Your task to perform on an android device: Search for the best rated tool bag on Lowe's. Image 0: 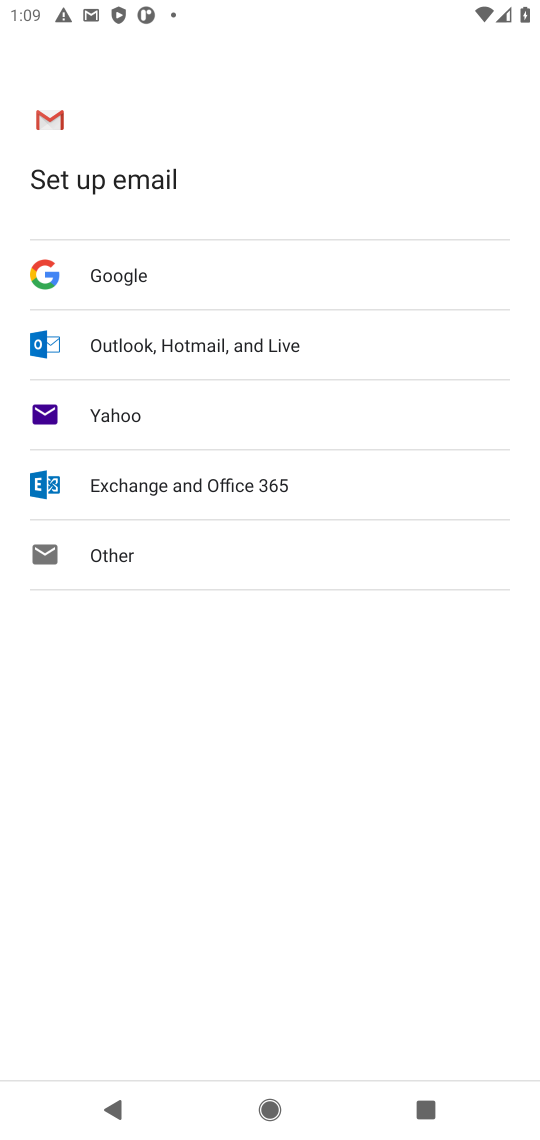
Step 0: press home button
Your task to perform on an android device: Search for the best rated tool bag on Lowe's. Image 1: 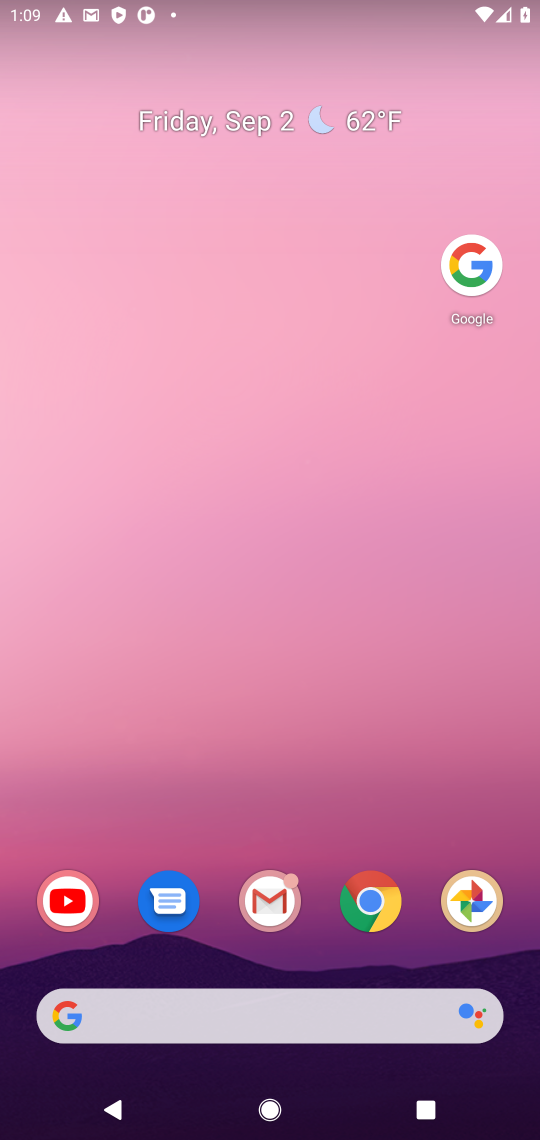
Step 1: click (216, 309)
Your task to perform on an android device: Search for the best rated tool bag on Lowe's. Image 2: 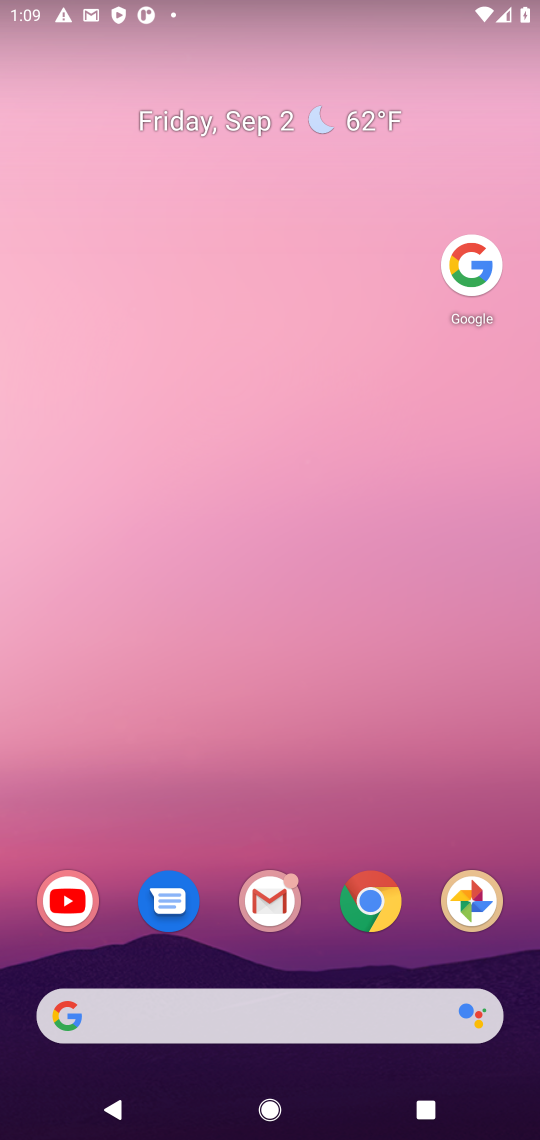
Step 2: click (361, 892)
Your task to perform on an android device: Search for the best rated tool bag on Lowe's. Image 3: 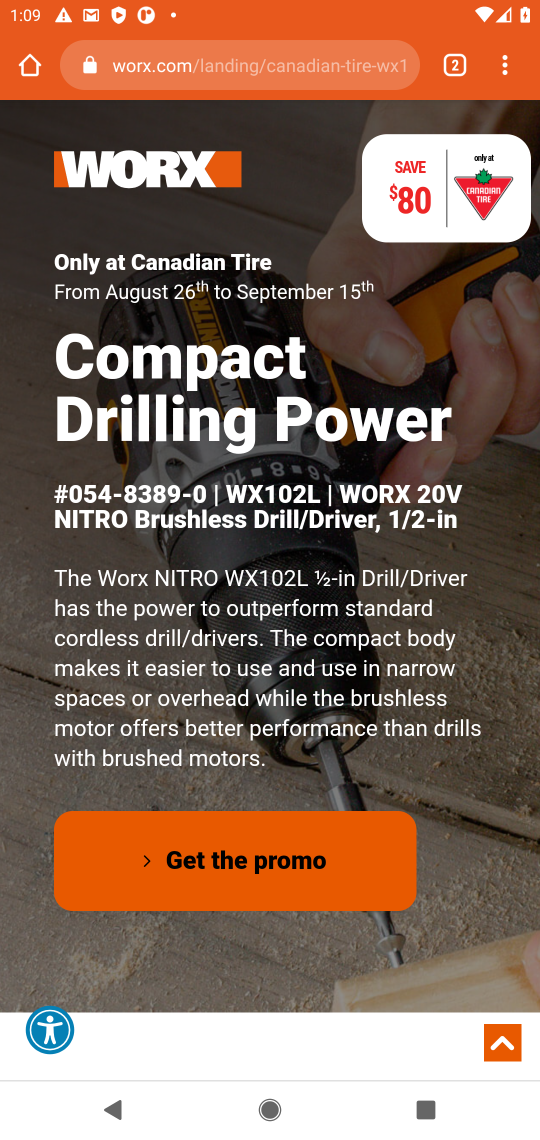
Step 3: click (506, 55)
Your task to perform on an android device: Search for the best rated tool bag on Lowe's. Image 4: 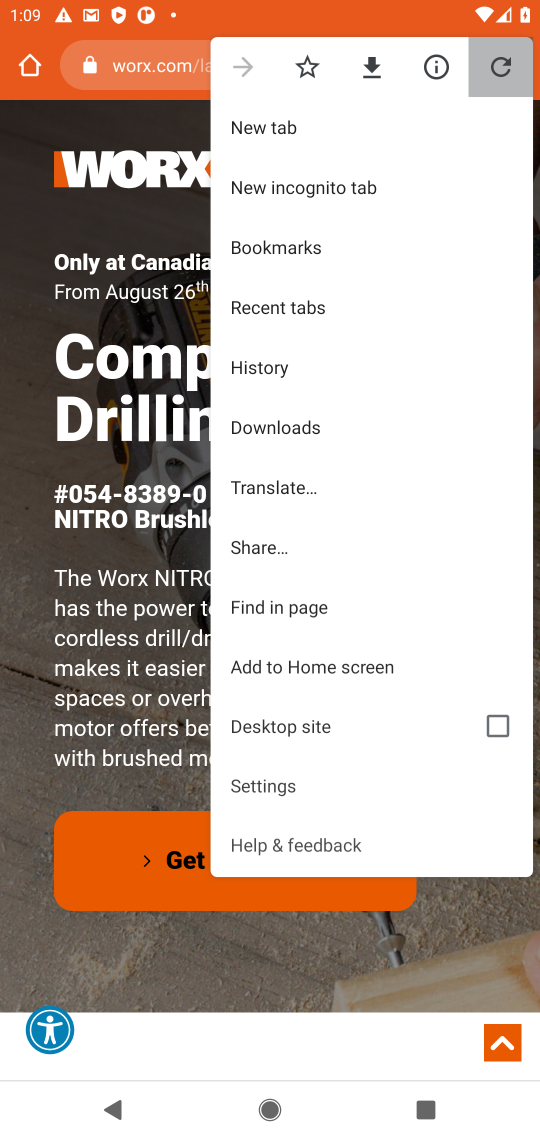
Step 4: click (515, 62)
Your task to perform on an android device: Search for the best rated tool bag on Lowe's. Image 5: 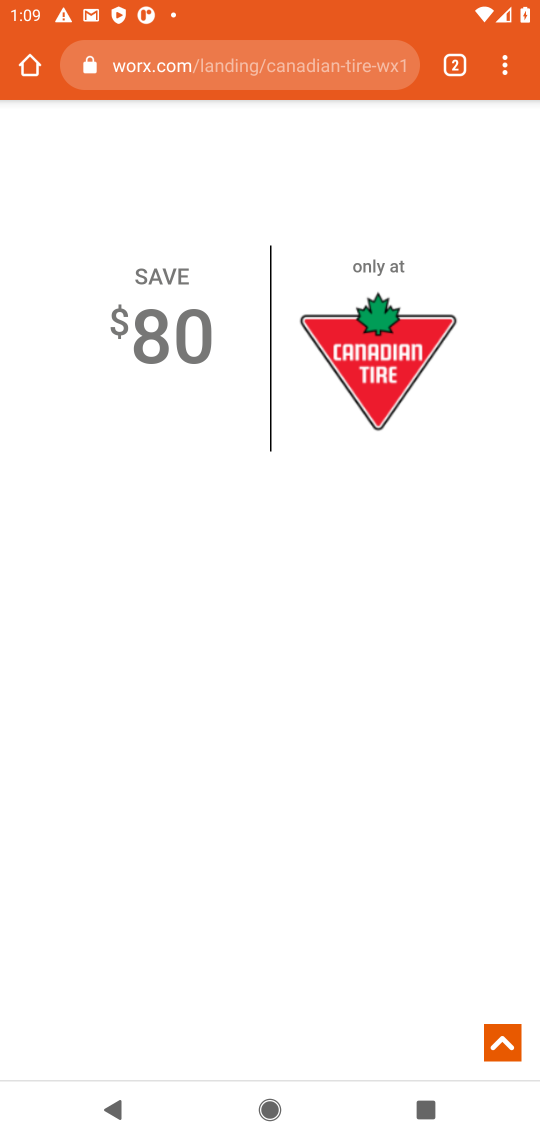
Step 5: click (506, 44)
Your task to perform on an android device: Search for the best rated tool bag on Lowe's. Image 6: 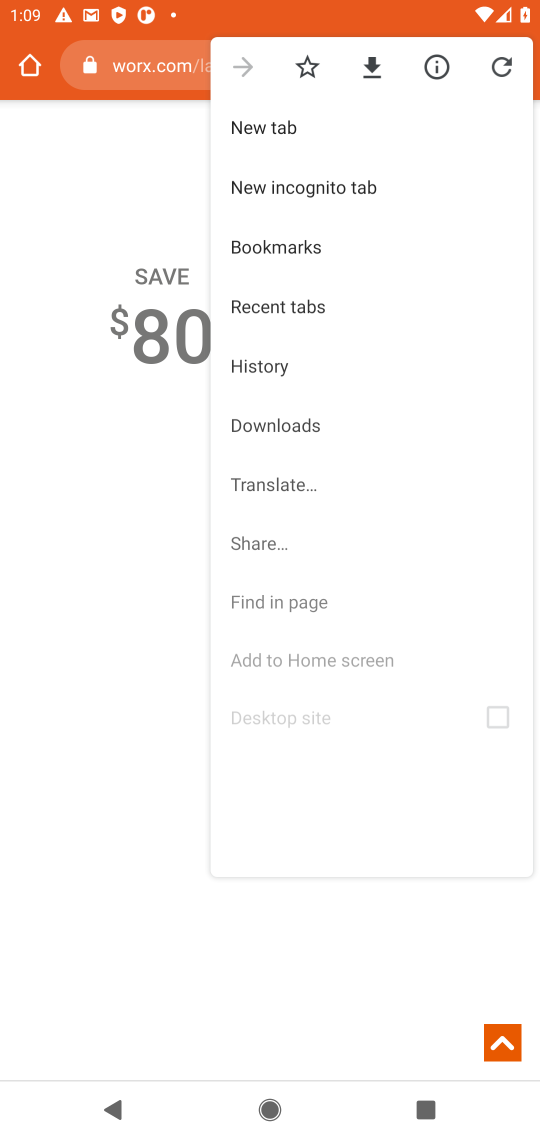
Step 6: click (277, 124)
Your task to perform on an android device: Search for the best rated tool bag on Lowe's. Image 7: 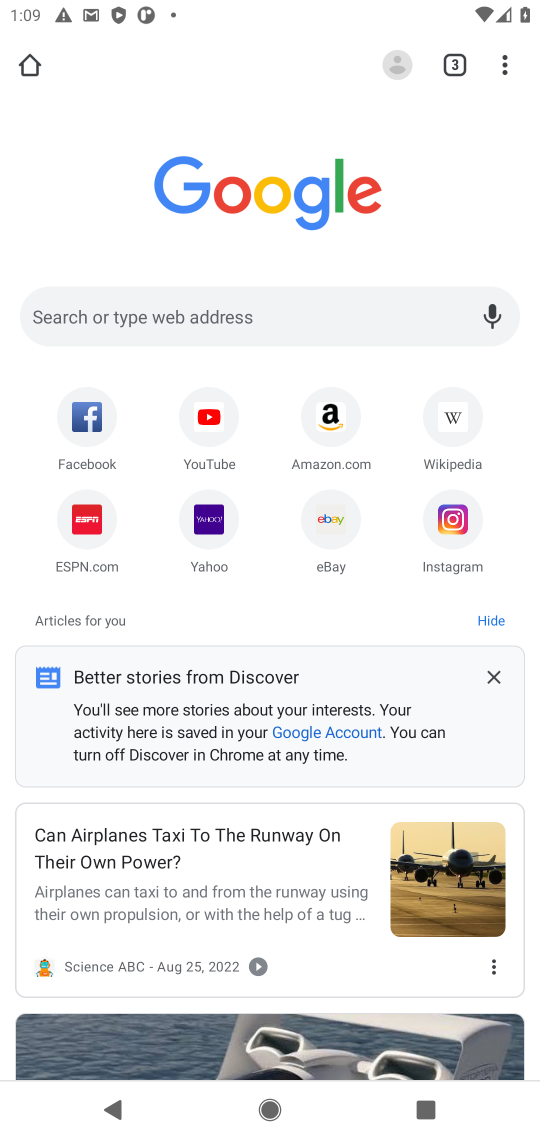
Step 7: click (176, 308)
Your task to perform on an android device: Search for the best rated tool bag on Lowe's. Image 8: 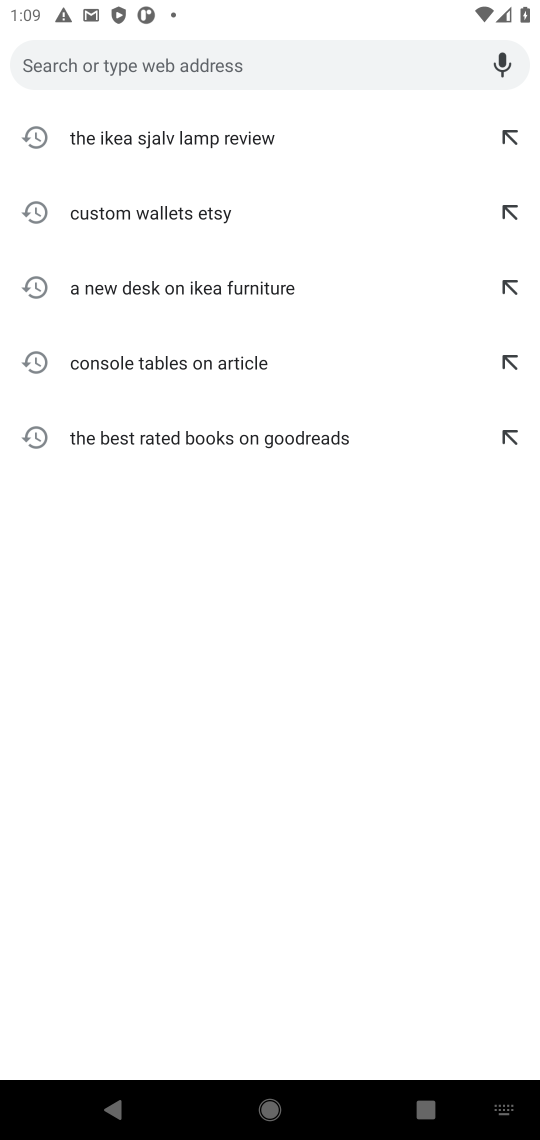
Step 8: type "the best rated tool bag on Lowe's "
Your task to perform on an android device: Search for the best rated tool bag on Lowe's. Image 9: 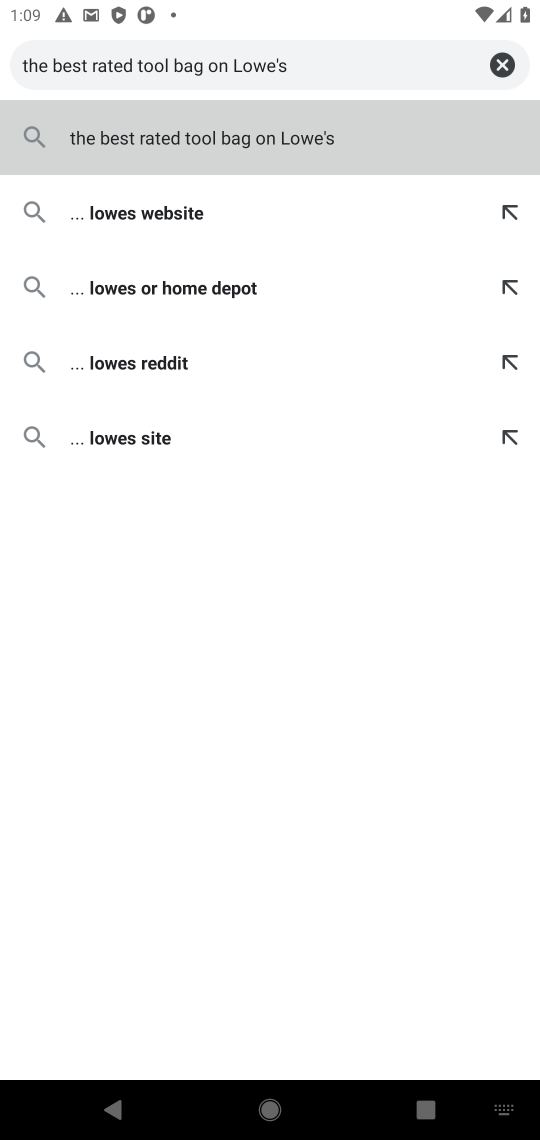
Step 9: click (260, 135)
Your task to perform on an android device: Search for the best rated tool bag on Lowe's. Image 10: 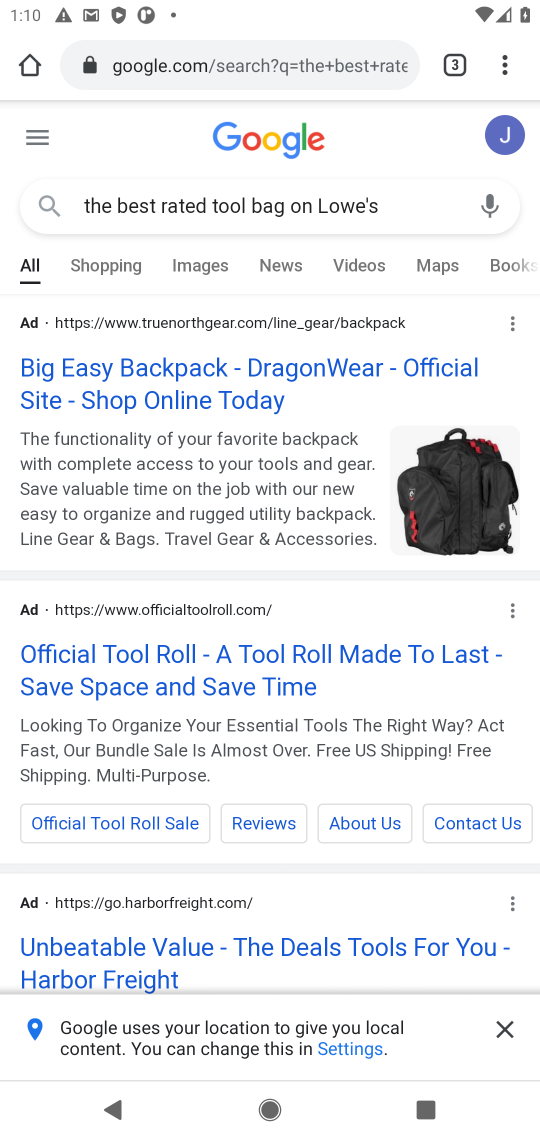
Step 10: drag from (233, 818) to (290, 167)
Your task to perform on an android device: Search for the best rated tool bag on Lowe's. Image 11: 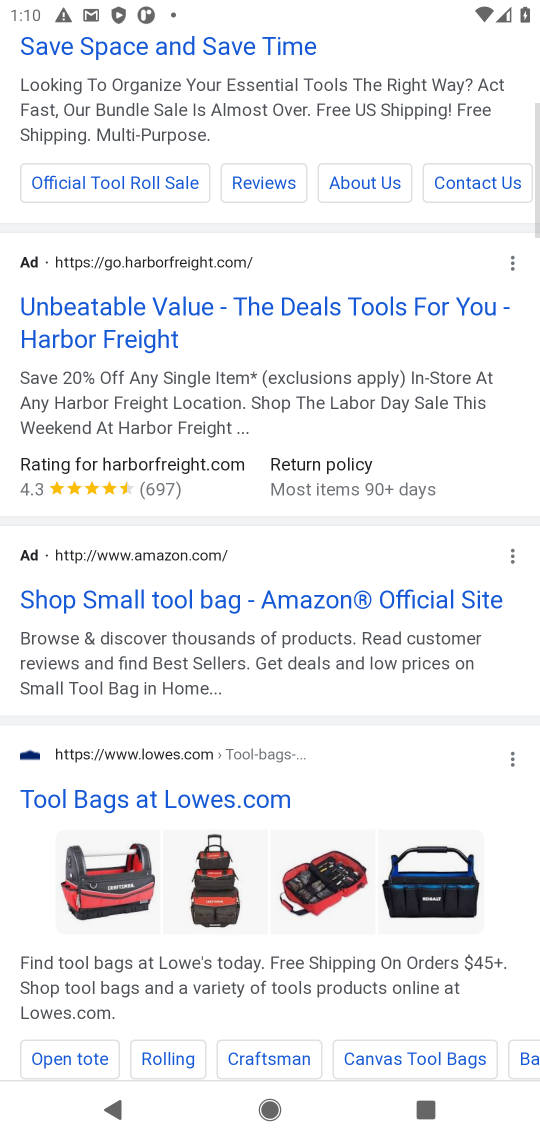
Step 11: drag from (256, 455) to (265, 358)
Your task to perform on an android device: Search for the best rated tool bag on Lowe's. Image 12: 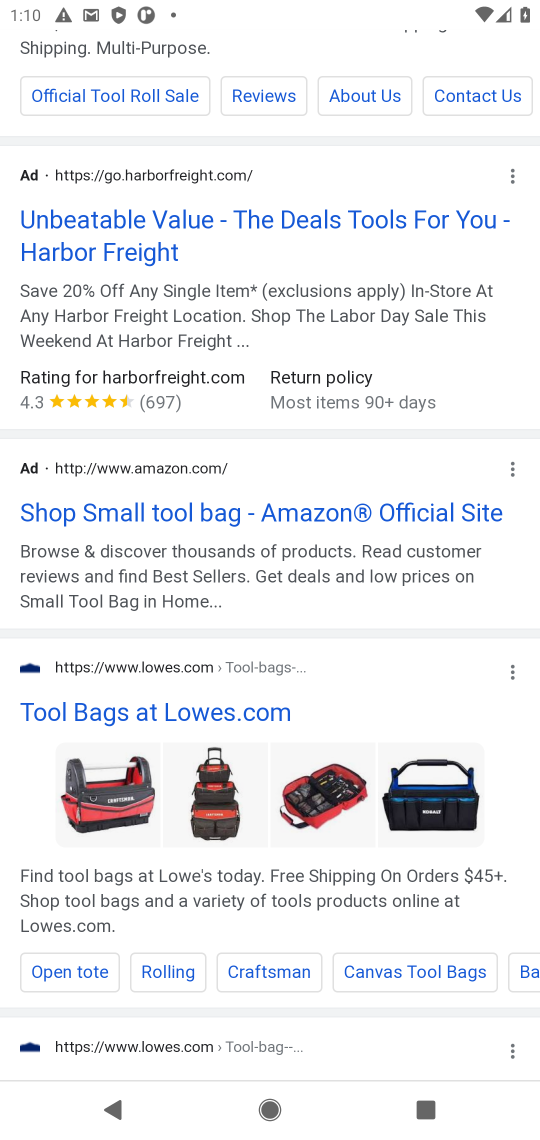
Step 12: click (96, 692)
Your task to perform on an android device: Search for the best rated tool bag on Lowe's. Image 13: 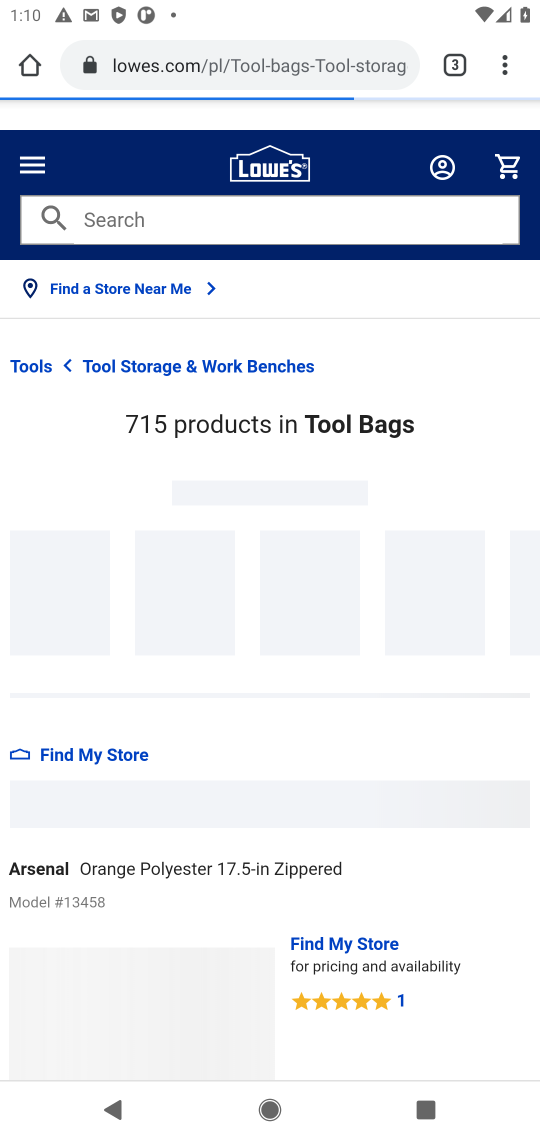
Step 13: task complete